Your task to perform on an android device: turn on priority inbox in the gmail app Image 0: 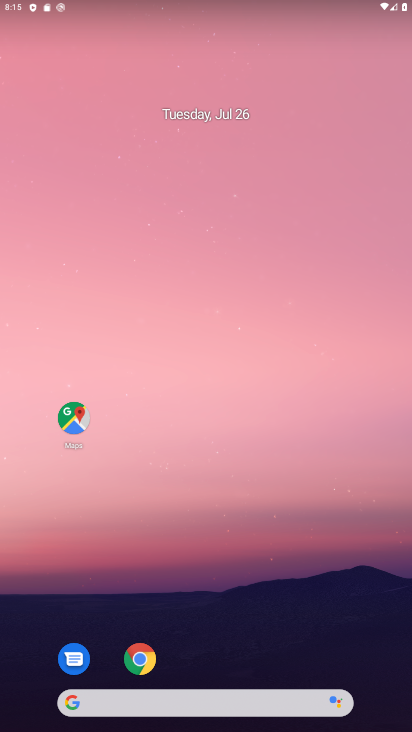
Step 0: drag from (372, 698) to (335, 75)
Your task to perform on an android device: turn on priority inbox in the gmail app Image 1: 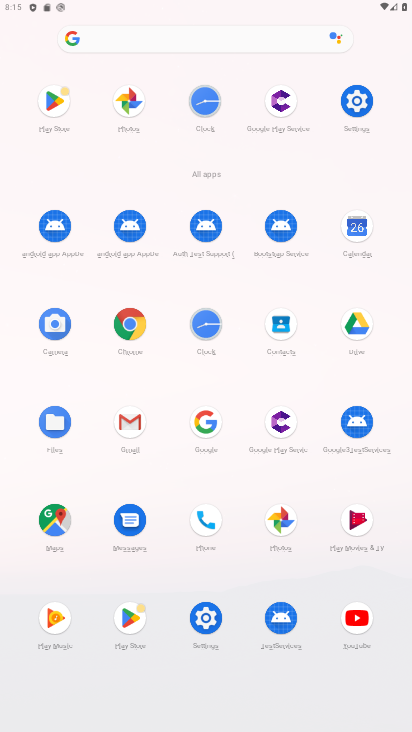
Step 1: click (126, 421)
Your task to perform on an android device: turn on priority inbox in the gmail app Image 2: 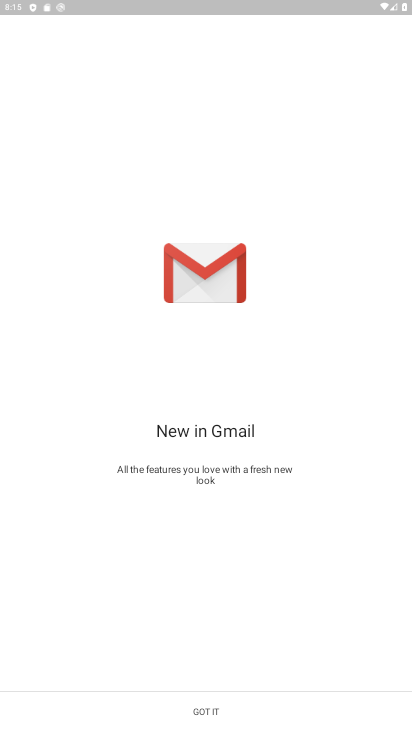
Step 2: click (199, 696)
Your task to perform on an android device: turn on priority inbox in the gmail app Image 3: 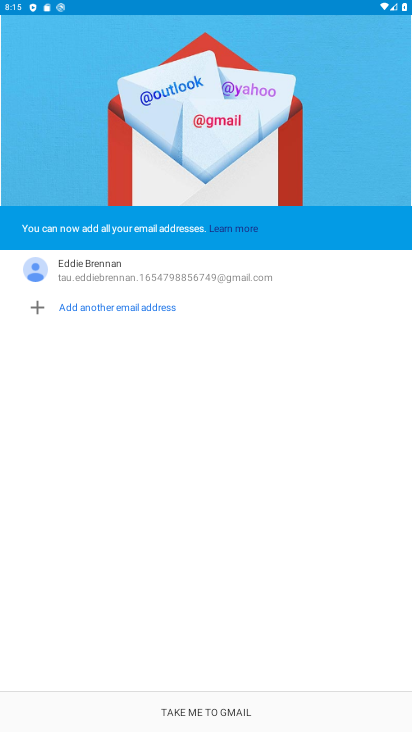
Step 3: click (199, 696)
Your task to perform on an android device: turn on priority inbox in the gmail app Image 4: 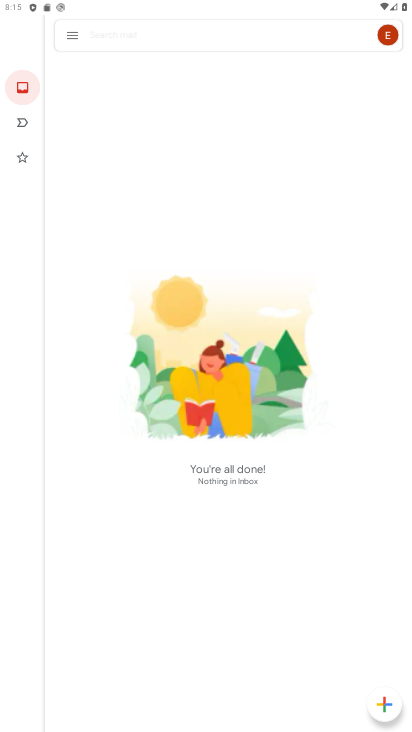
Step 4: click (73, 42)
Your task to perform on an android device: turn on priority inbox in the gmail app Image 5: 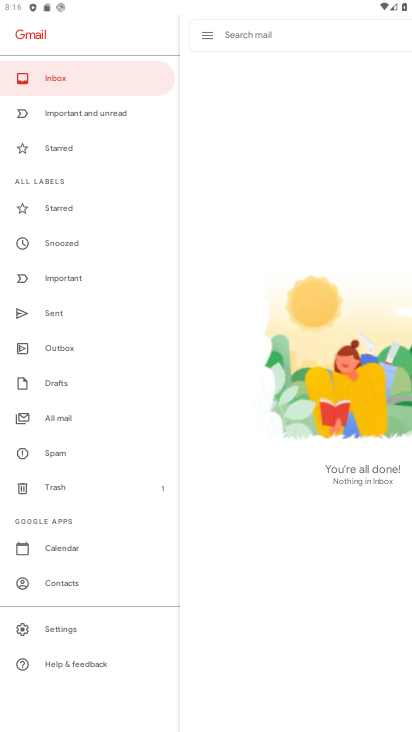
Step 5: click (57, 630)
Your task to perform on an android device: turn on priority inbox in the gmail app Image 6: 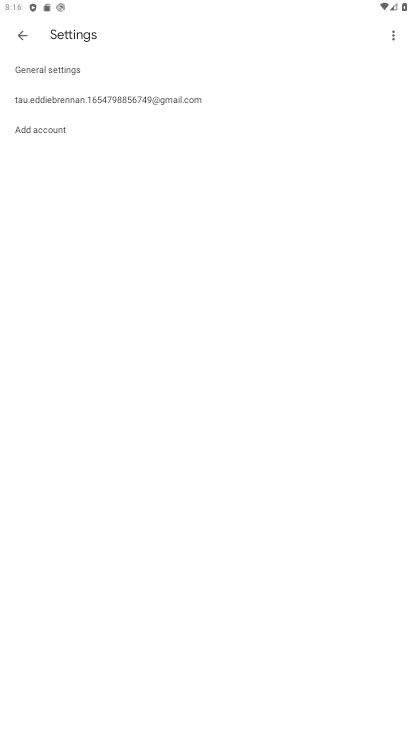
Step 6: click (85, 99)
Your task to perform on an android device: turn on priority inbox in the gmail app Image 7: 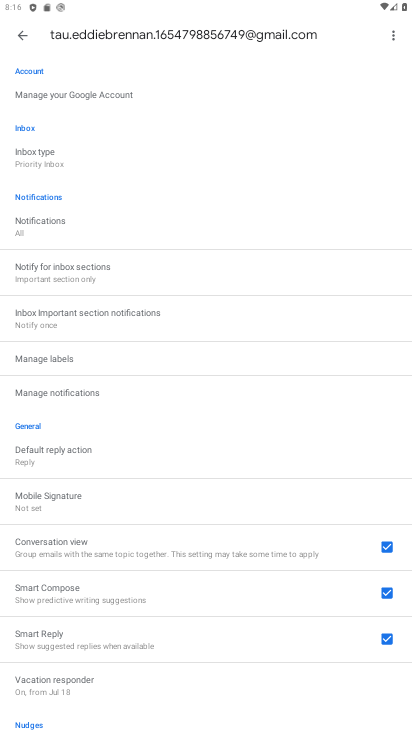
Step 7: click (51, 152)
Your task to perform on an android device: turn on priority inbox in the gmail app Image 8: 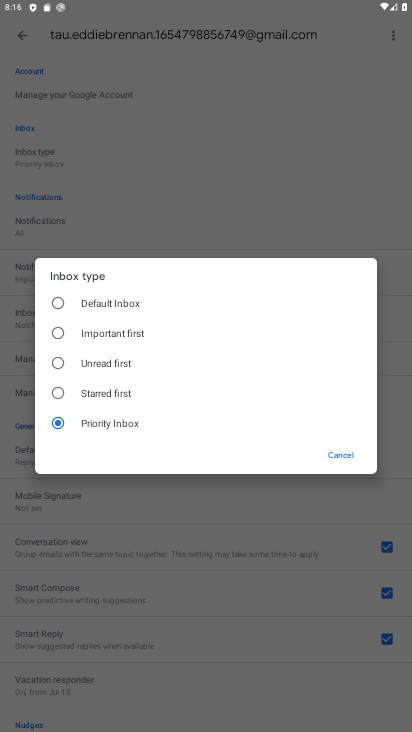
Step 8: task complete